Your task to perform on an android device: change the clock display to digital Image 0: 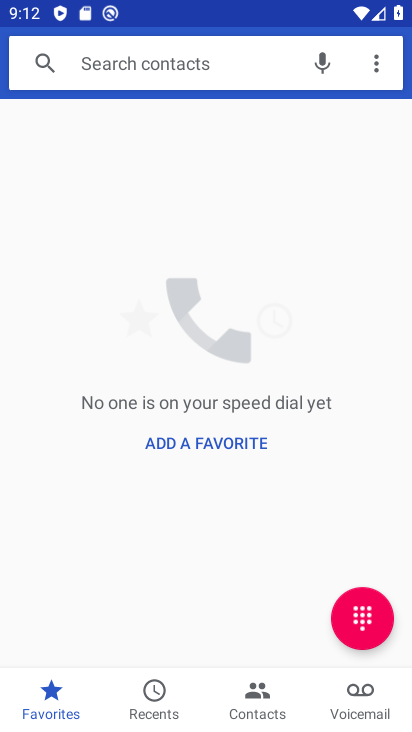
Step 0: task complete